Your task to perform on an android device: open chrome privacy settings Image 0: 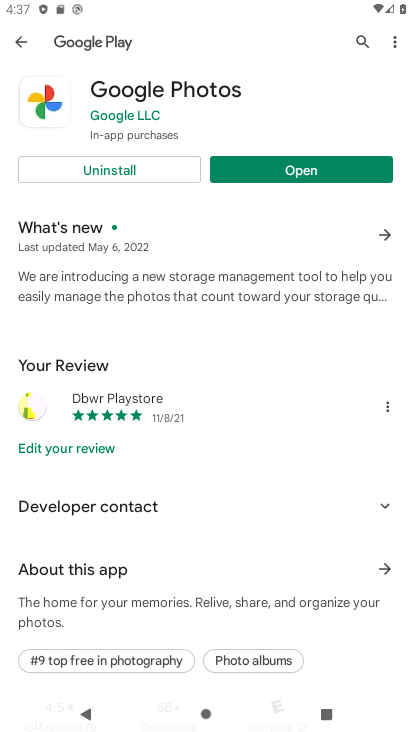
Step 0: press home button
Your task to perform on an android device: open chrome privacy settings Image 1: 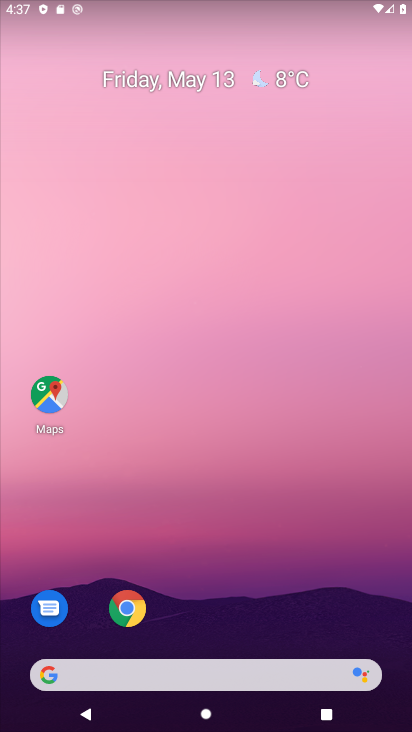
Step 1: click (125, 606)
Your task to perform on an android device: open chrome privacy settings Image 2: 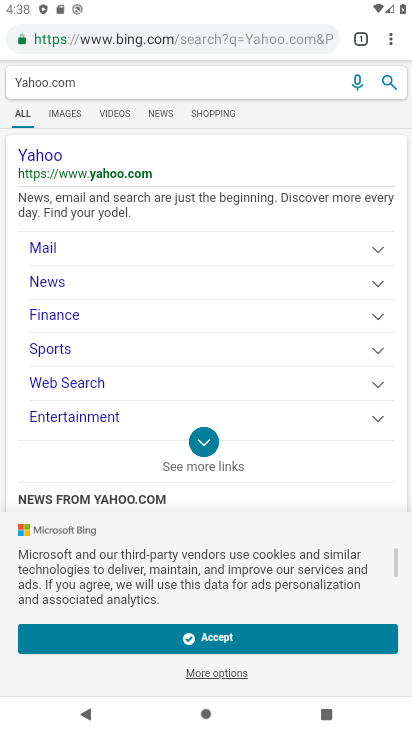
Step 2: click (393, 41)
Your task to perform on an android device: open chrome privacy settings Image 3: 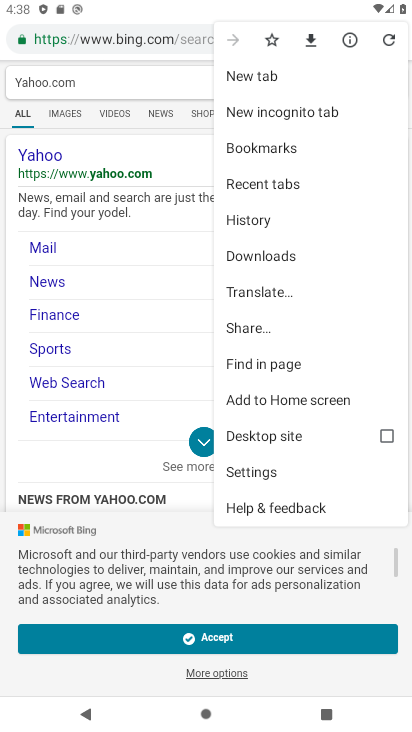
Step 3: click (260, 474)
Your task to perform on an android device: open chrome privacy settings Image 4: 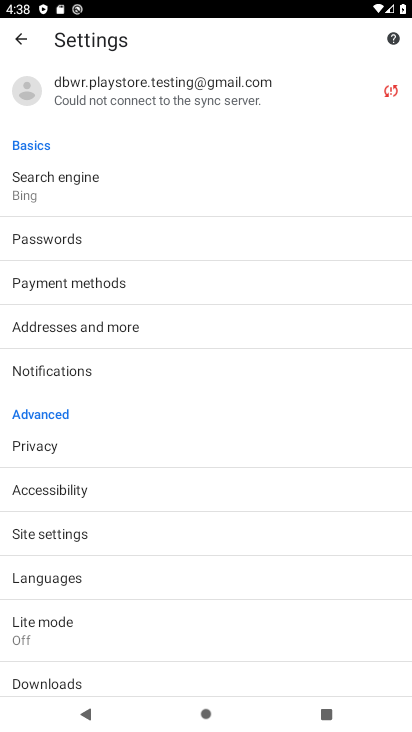
Step 4: click (30, 436)
Your task to perform on an android device: open chrome privacy settings Image 5: 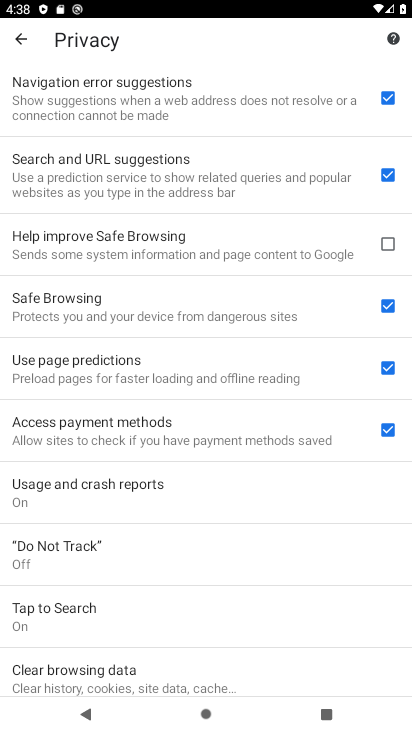
Step 5: task complete